Your task to perform on an android device: Open Chrome and go to settings Image 0: 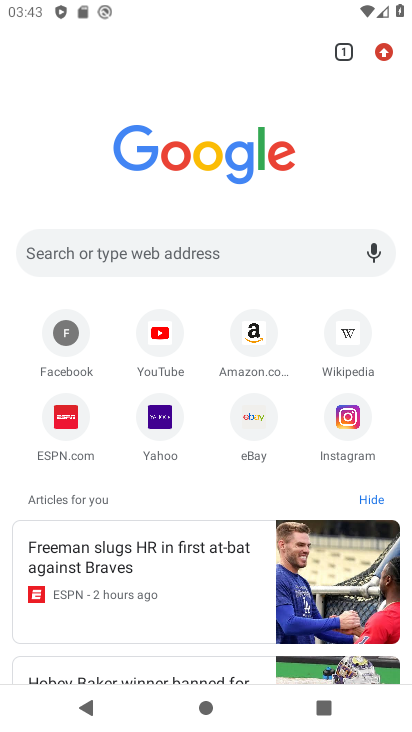
Step 0: click (383, 50)
Your task to perform on an android device: Open Chrome and go to settings Image 1: 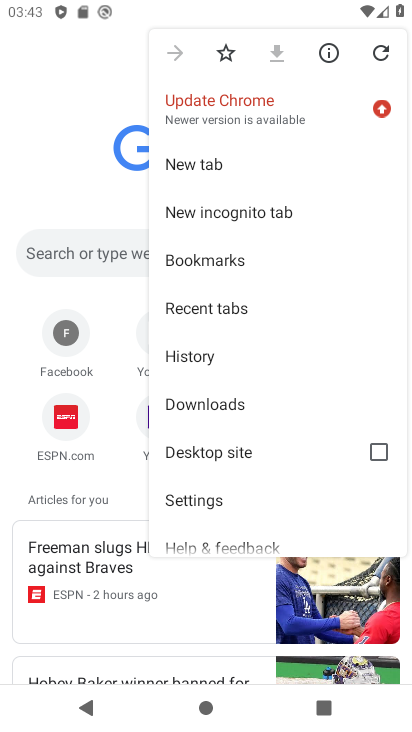
Step 1: click (247, 513)
Your task to perform on an android device: Open Chrome and go to settings Image 2: 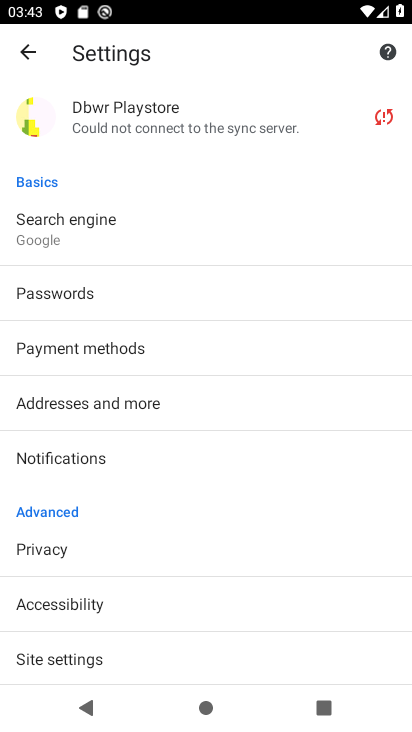
Step 2: task complete